Your task to perform on an android device: Open Reddit.com Image 0: 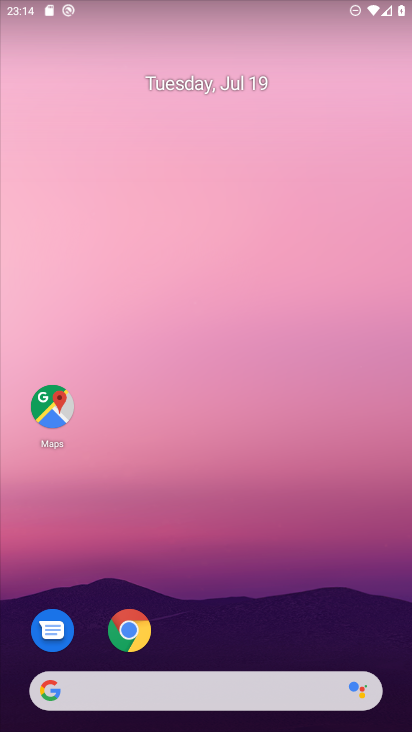
Step 0: click (124, 638)
Your task to perform on an android device: Open Reddit.com Image 1: 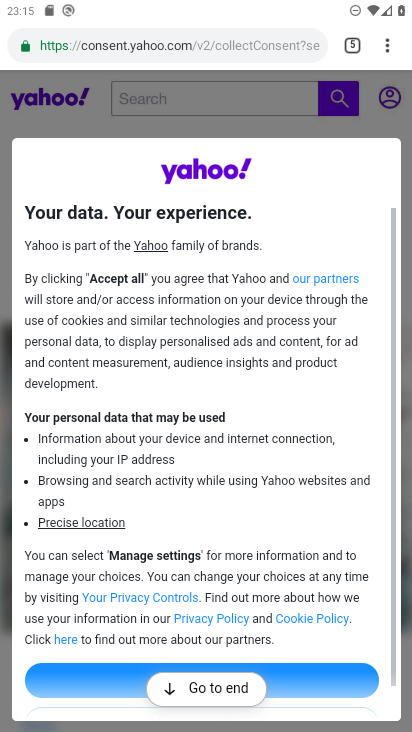
Step 1: click (356, 45)
Your task to perform on an android device: Open Reddit.com Image 2: 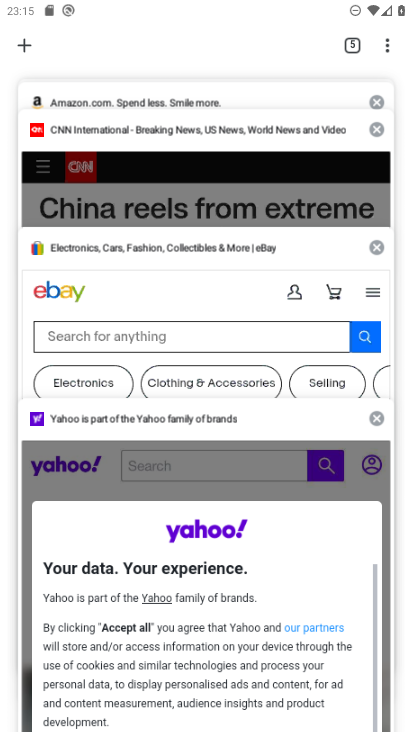
Step 2: click (26, 44)
Your task to perform on an android device: Open Reddit.com Image 3: 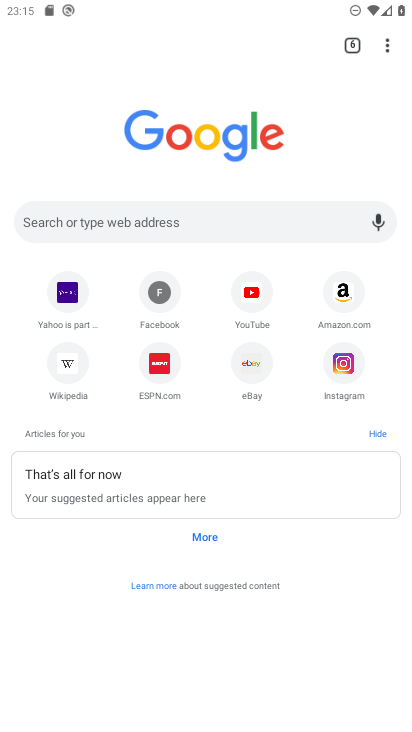
Step 3: click (185, 243)
Your task to perform on an android device: Open Reddit.com Image 4: 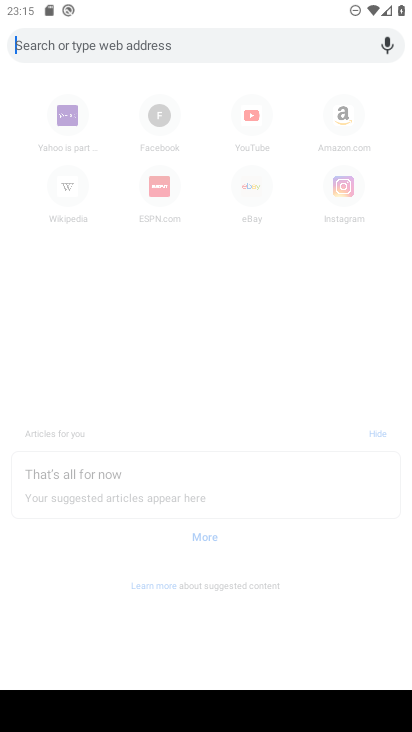
Step 4: type "Reddit.com"
Your task to perform on an android device: Open Reddit.com Image 5: 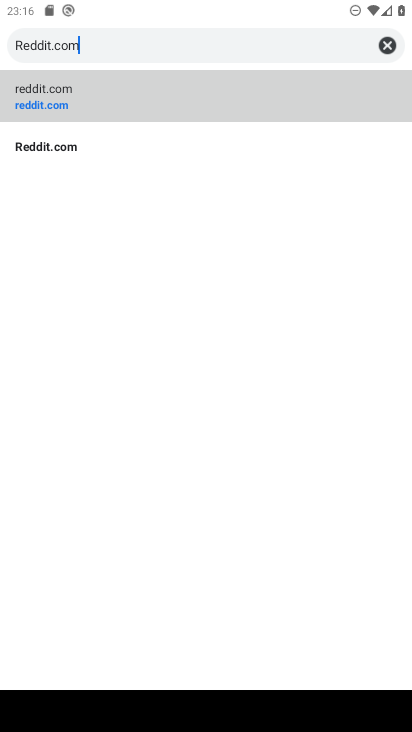
Step 5: type ""
Your task to perform on an android device: Open Reddit.com Image 6: 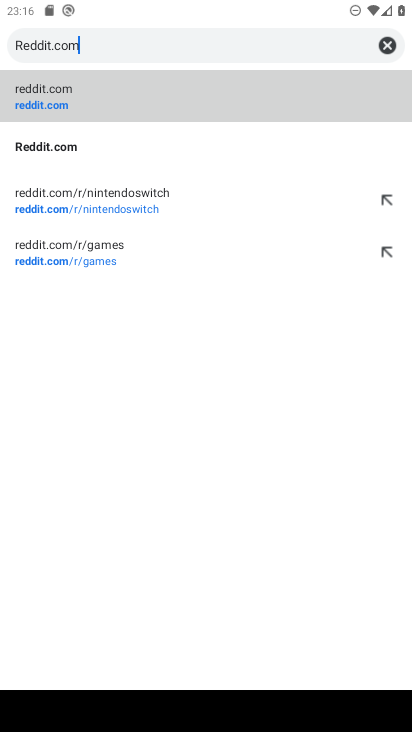
Step 6: click (64, 80)
Your task to perform on an android device: Open Reddit.com Image 7: 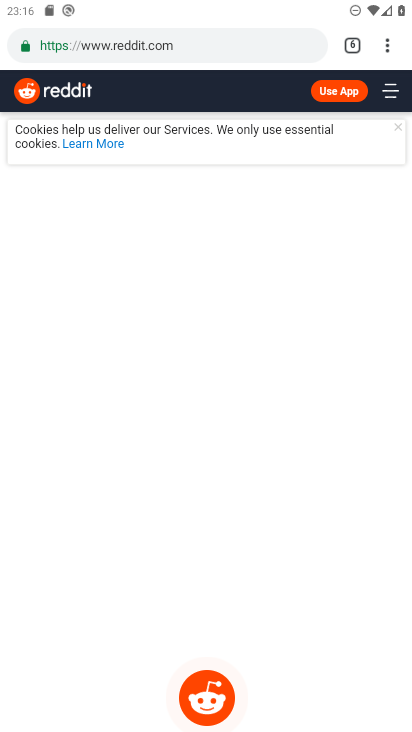
Step 7: task complete